Your task to perform on an android device: turn on translation in the chrome app Image 0: 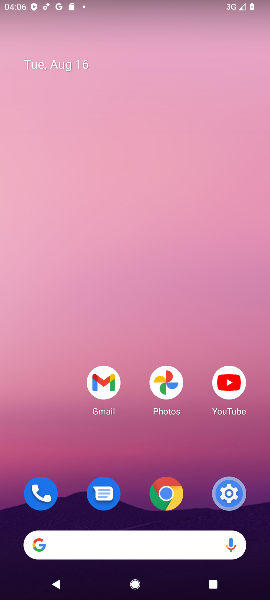
Step 0: press home button
Your task to perform on an android device: turn on translation in the chrome app Image 1: 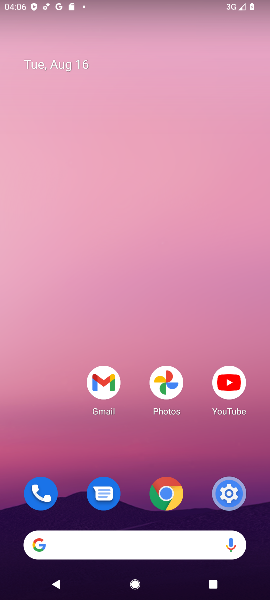
Step 1: drag from (68, 475) to (126, 103)
Your task to perform on an android device: turn on translation in the chrome app Image 2: 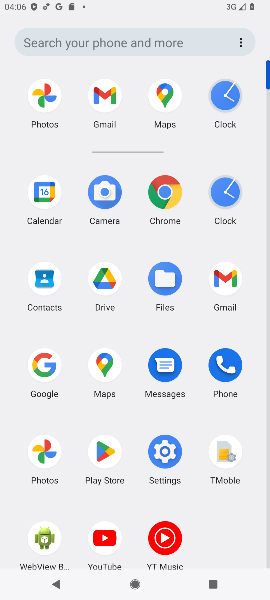
Step 2: click (165, 190)
Your task to perform on an android device: turn on translation in the chrome app Image 3: 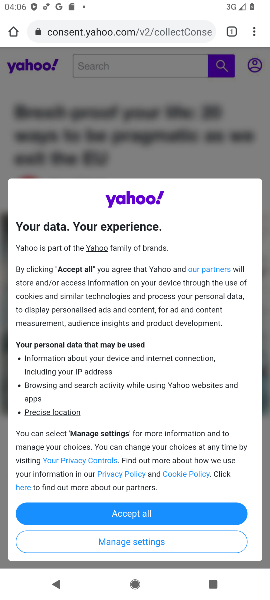
Step 3: click (255, 26)
Your task to perform on an android device: turn on translation in the chrome app Image 4: 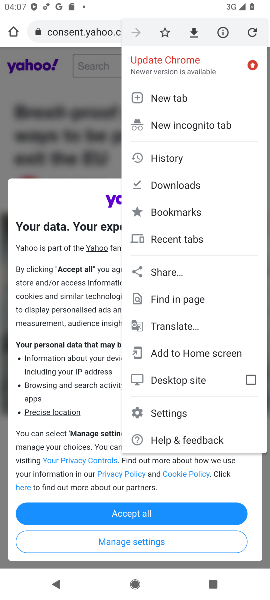
Step 4: click (199, 412)
Your task to perform on an android device: turn on translation in the chrome app Image 5: 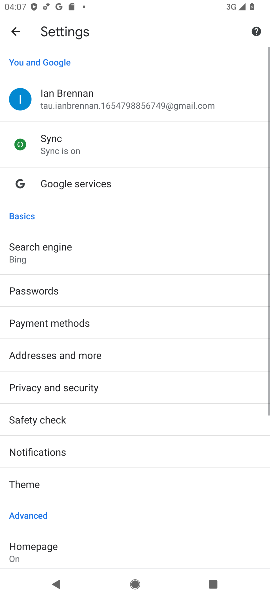
Step 5: drag from (203, 425) to (217, 323)
Your task to perform on an android device: turn on translation in the chrome app Image 6: 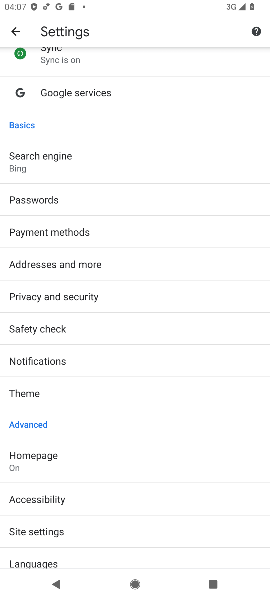
Step 6: drag from (190, 430) to (208, 316)
Your task to perform on an android device: turn on translation in the chrome app Image 7: 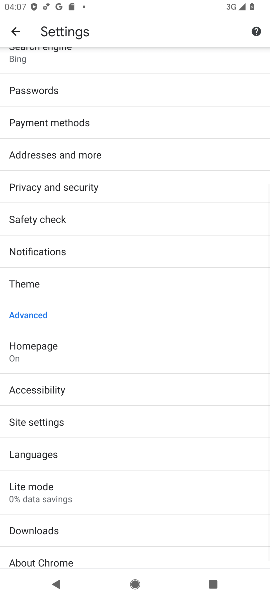
Step 7: drag from (183, 429) to (190, 321)
Your task to perform on an android device: turn on translation in the chrome app Image 8: 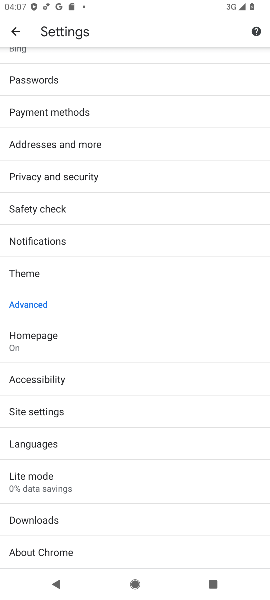
Step 8: click (163, 445)
Your task to perform on an android device: turn on translation in the chrome app Image 9: 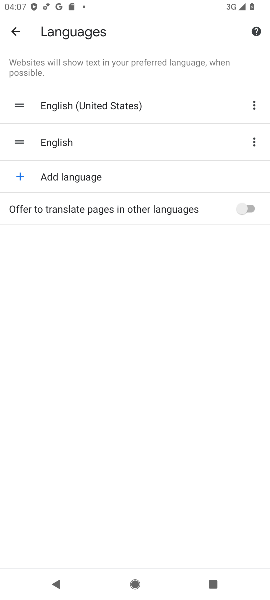
Step 9: click (236, 210)
Your task to perform on an android device: turn on translation in the chrome app Image 10: 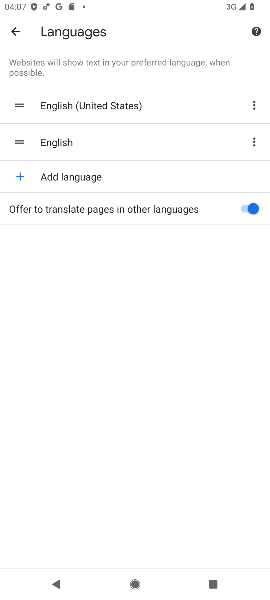
Step 10: task complete